Your task to perform on an android device: Go to notification settings Image 0: 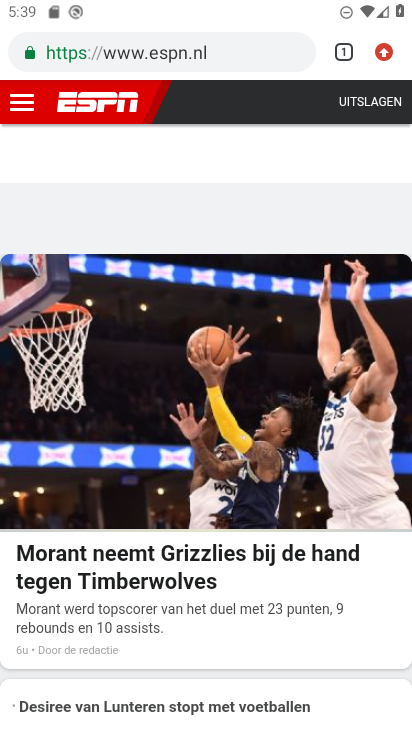
Step 0: press home button
Your task to perform on an android device: Go to notification settings Image 1: 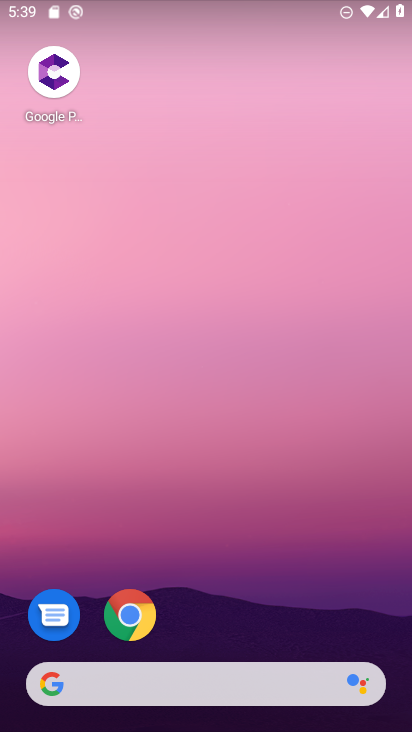
Step 1: drag from (236, 582) to (244, 1)
Your task to perform on an android device: Go to notification settings Image 2: 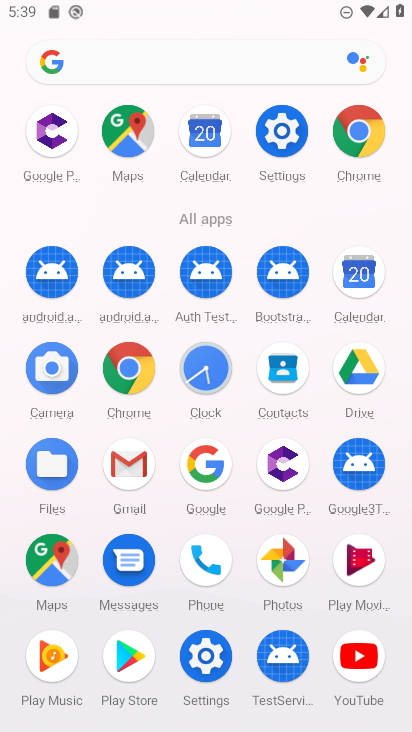
Step 2: click (290, 165)
Your task to perform on an android device: Go to notification settings Image 3: 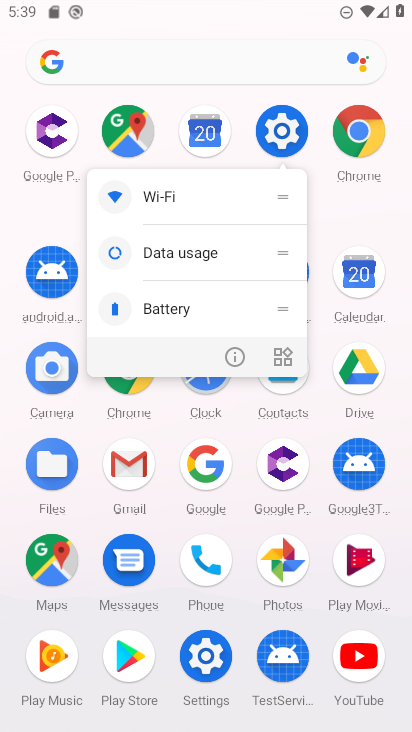
Step 3: click (283, 133)
Your task to perform on an android device: Go to notification settings Image 4: 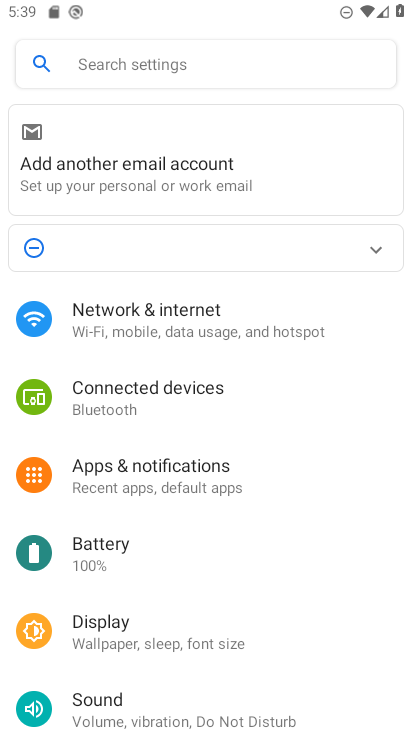
Step 4: click (153, 482)
Your task to perform on an android device: Go to notification settings Image 5: 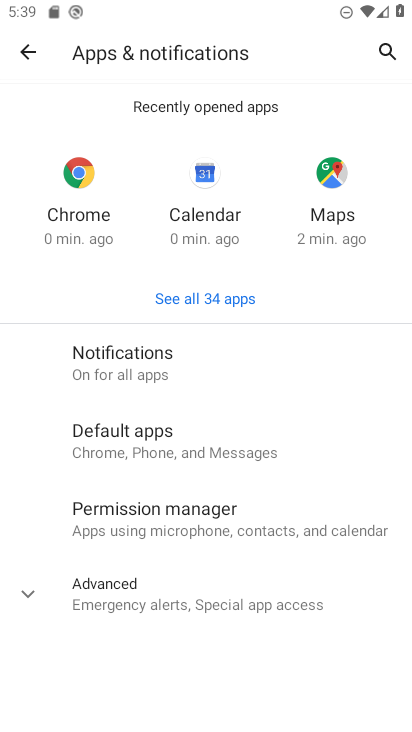
Step 5: click (131, 368)
Your task to perform on an android device: Go to notification settings Image 6: 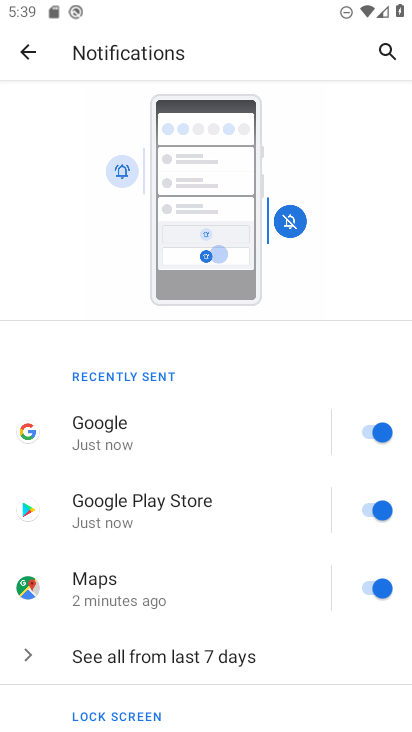
Step 6: task complete